Your task to perform on an android device: Toggle the flashlight Image 0: 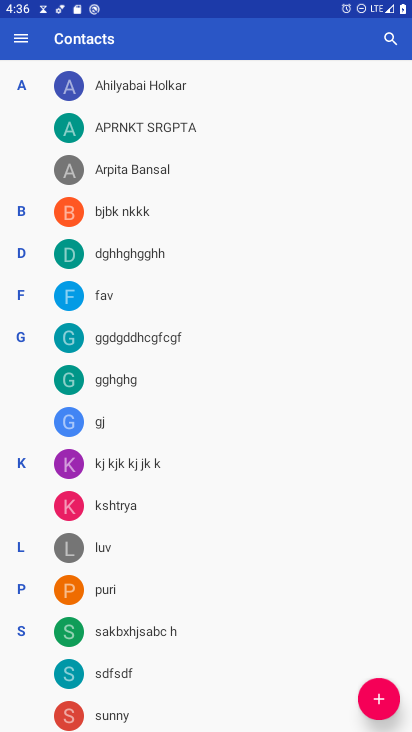
Step 0: press home button
Your task to perform on an android device: Toggle the flashlight Image 1: 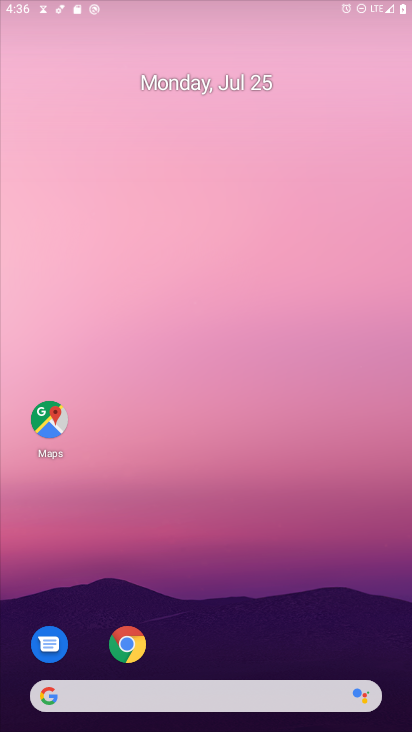
Step 1: task complete